Your task to perform on an android device: Search for razer kraken on target, select the first entry, and add it to the cart. Image 0: 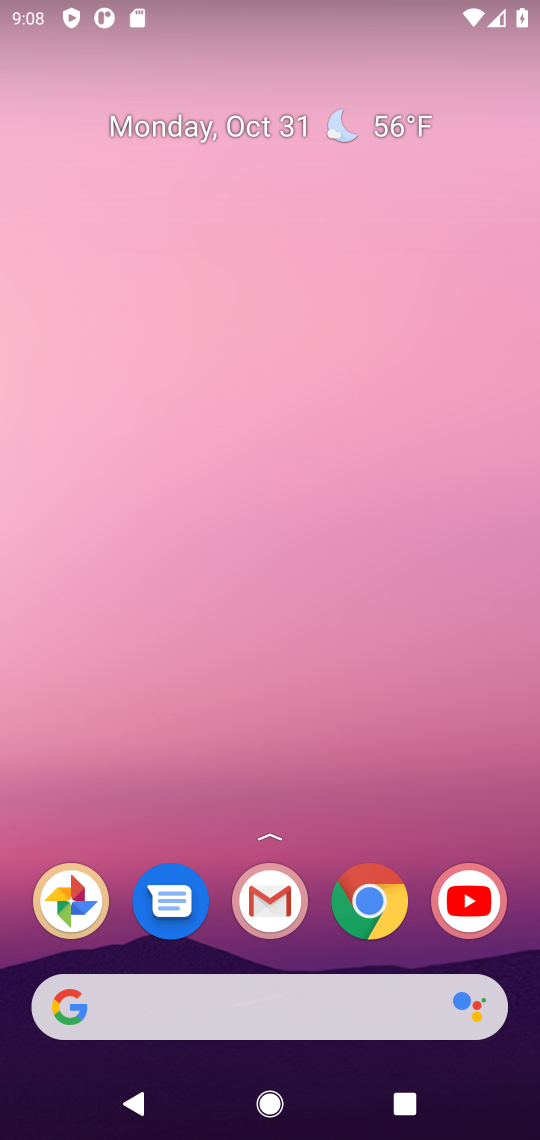
Step 0: drag from (199, 912) to (279, 101)
Your task to perform on an android device: Search for razer kraken on target, select the first entry, and add it to the cart. Image 1: 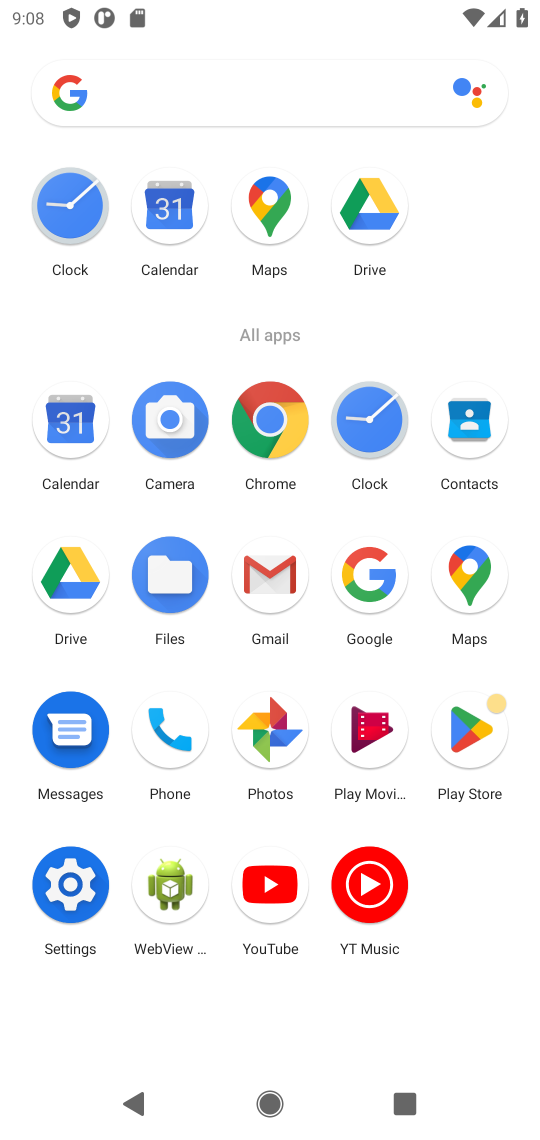
Step 1: click (374, 559)
Your task to perform on an android device: Search for razer kraken on target, select the first entry, and add it to the cart. Image 2: 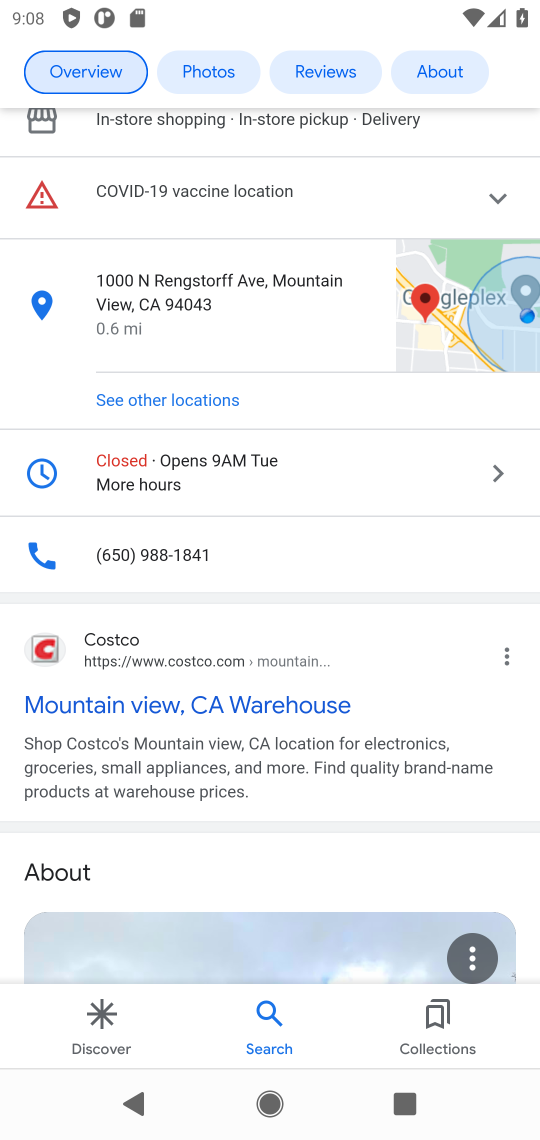
Step 2: drag from (227, 253) to (214, 759)
Your task to perform on an android device: Search for razer kraken on target, select the first entry, and add it to the cart. Image 3: 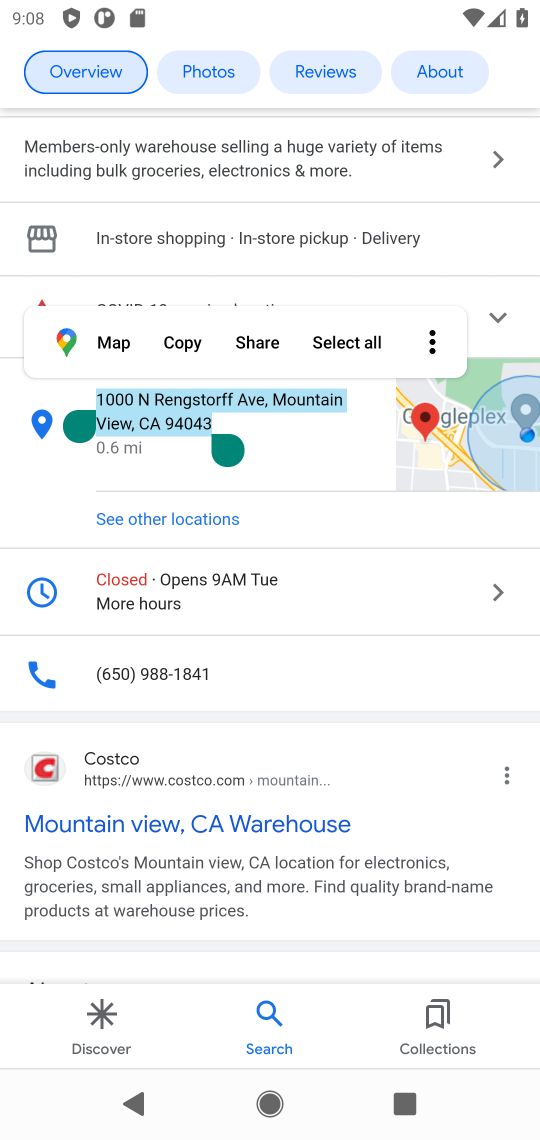
Step 3: click (384, 752)
Your task to perform on an android device: Search for razer kraken on target, select the first entry, and add it to the cart. Image 4: 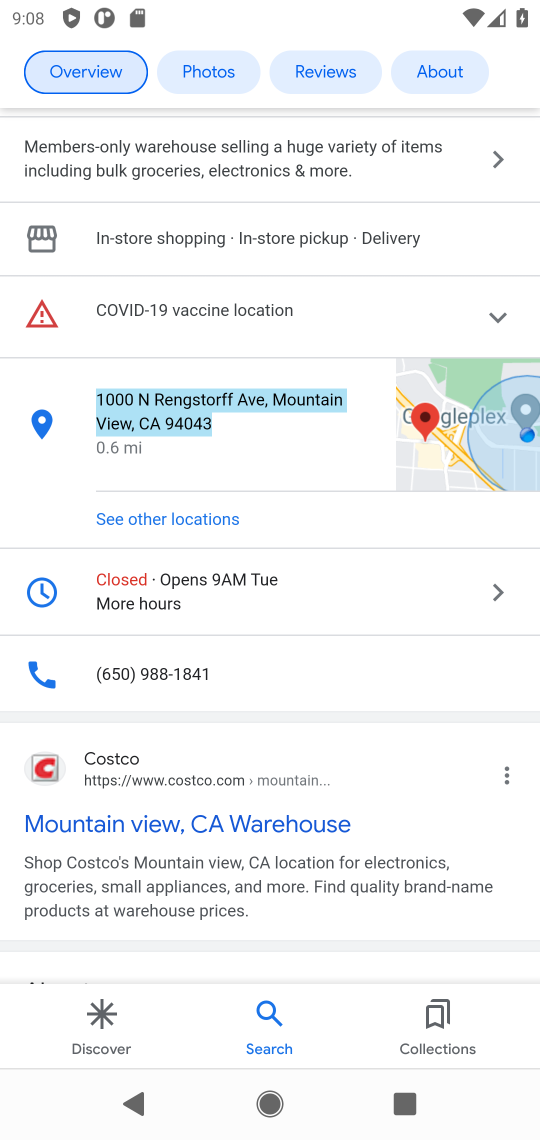
Step 4: drag from (228, 223) to (261, 924)
Your task to perform on an android device: Search for razer kraken on target, select the first entry, and add it to the cart. Image 5: 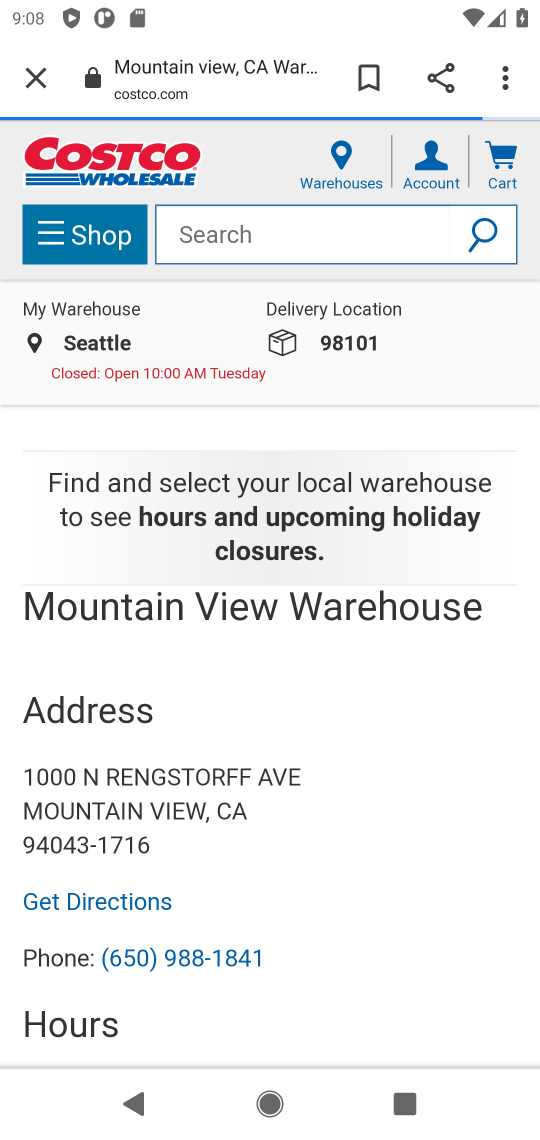
Step 5: press back button
Your task to perform on an android device: Search for razer kraken on target, select the first entry, and add it to the cart. Image 6: 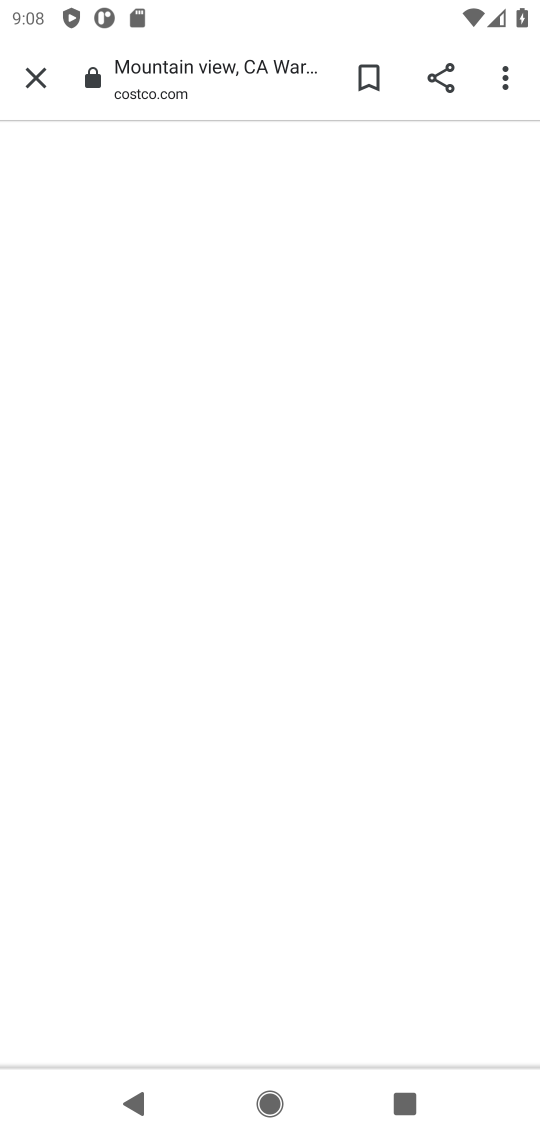
Step 6: press back button
Your task to perform on an android device: Search for razer kraken on target, select the first entry, and add it to the cart. Image 7: 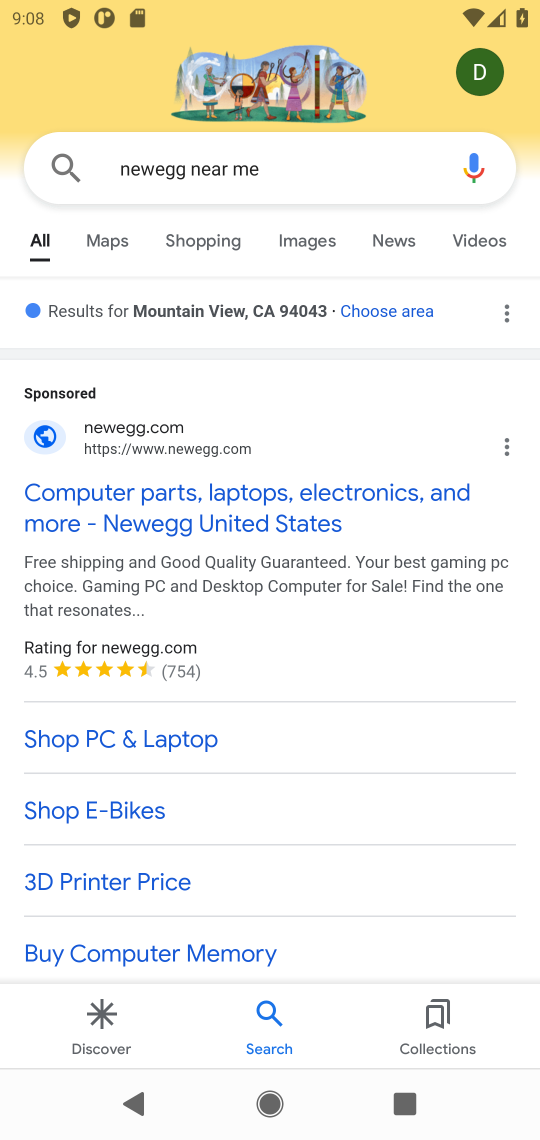
Step 7: click (304, 166)
Your task to perform on an android device: Search for razer kraken on target, select the first entry, and add it to the cart. Image 8: 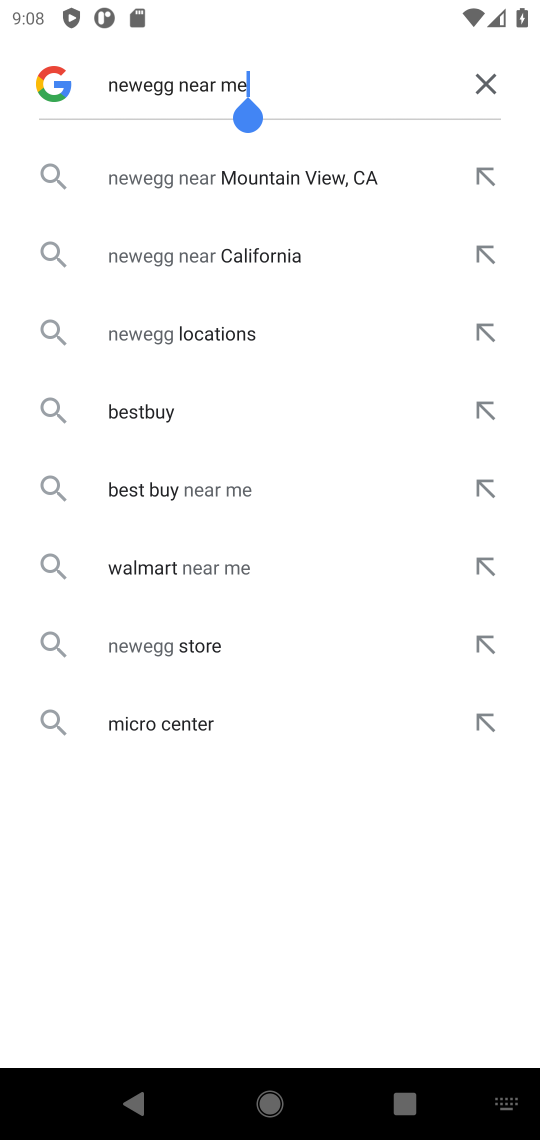
Step 8: click (488, 81)
Your task to perform on an android device: Search for razer kraken on target, select the first entry, and add it to the cart. Image 9: 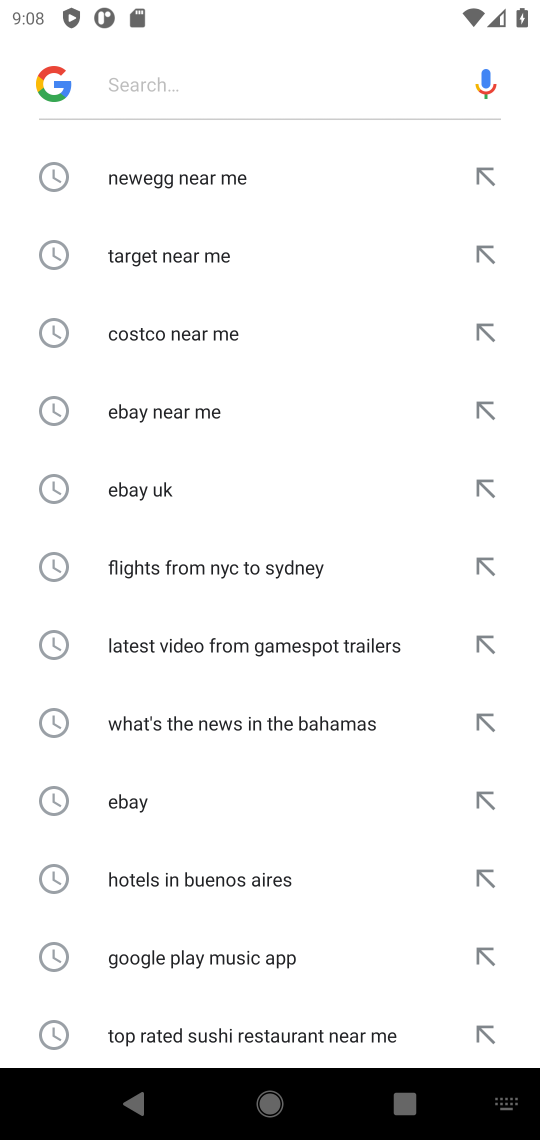
Step 9: click (213, 91)
Your task to perform on an android device: Search for razer kraken on target, select the first entry, and add it to the cart. Image 10: 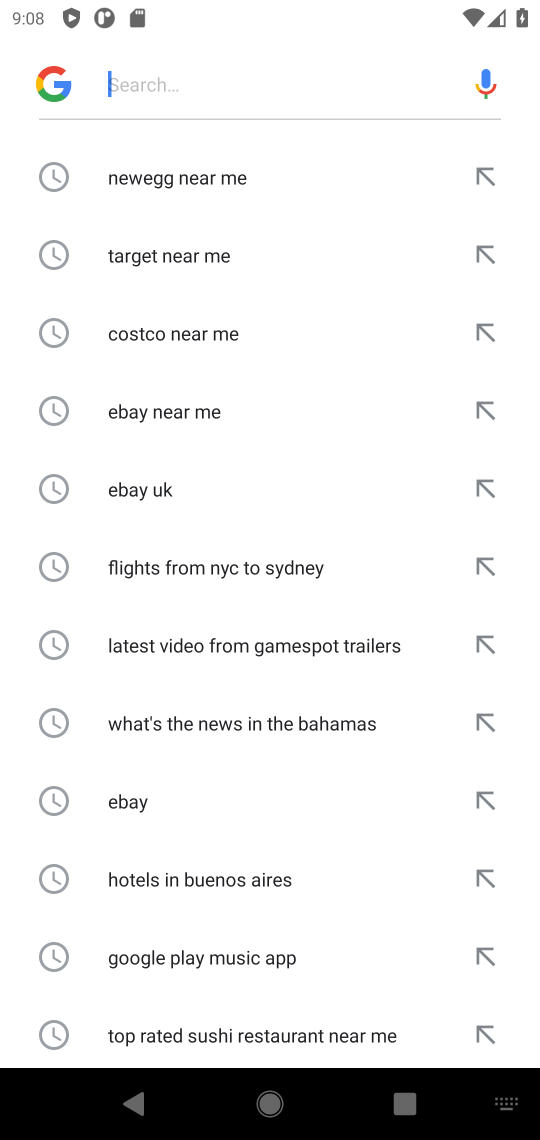
Step 10: type "target "
Your task to perform on an android device: Search for razer kraken on target, select the first entry, and add it to the cart. Image 11: 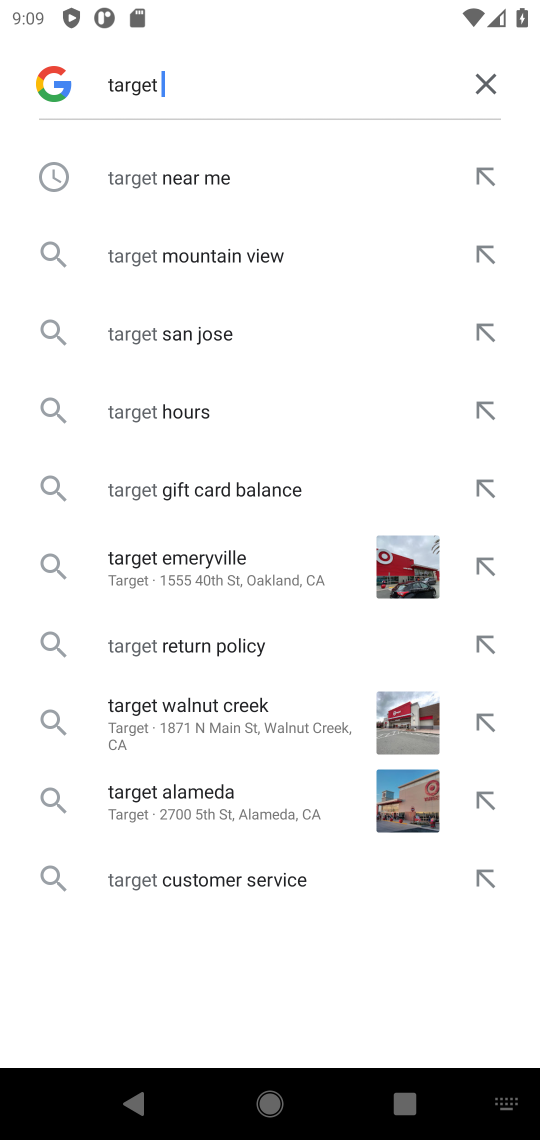
Step 11: click (189, 181)
Your task to perform on an android device: Search for razer kraken on target, select the first entry, and add it to the cart. Image 12: 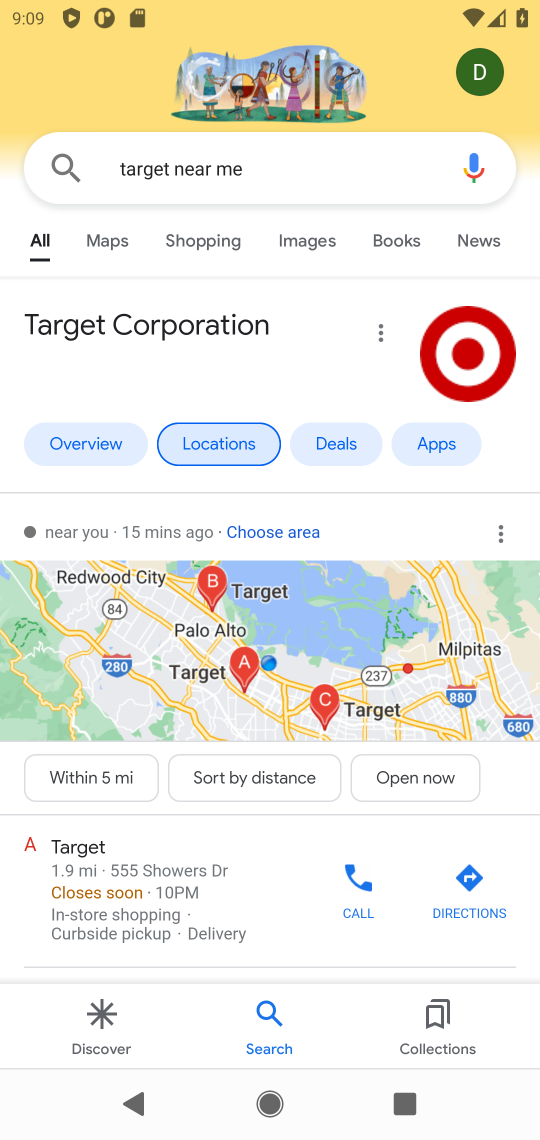
Step 12: drag from (202, 846) to (376, 324)
Your task to perform on an android device: Search for razer kraken on target, select the first entry, and add it to the cart. Image 13: 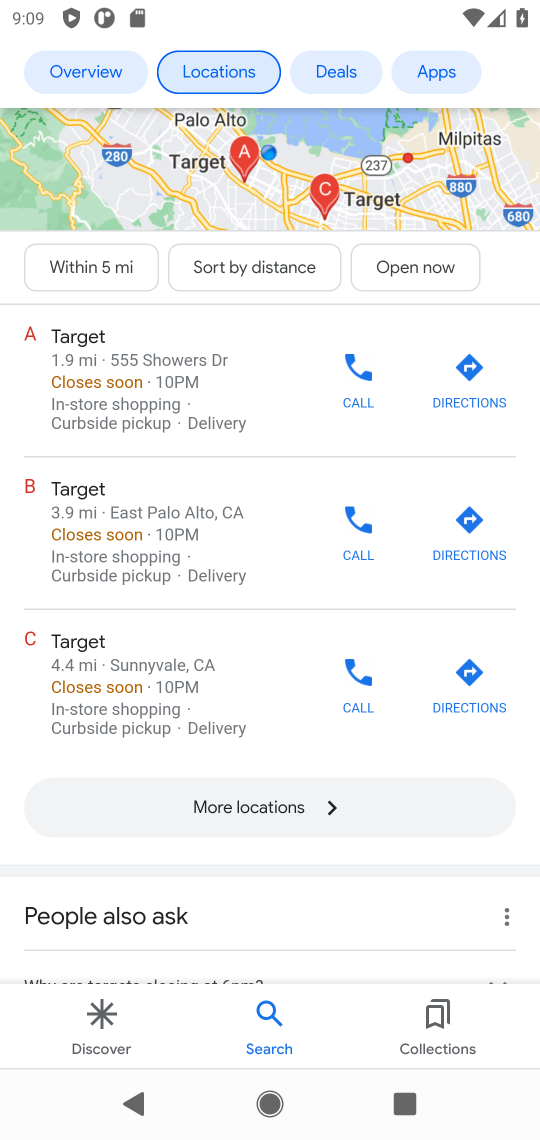
Step 13: drag from (152, 912) to (266, 302)
Your task to perform on an android device: Search for razer kraken on target, select the first entry, and add it to the cart. Image 14: 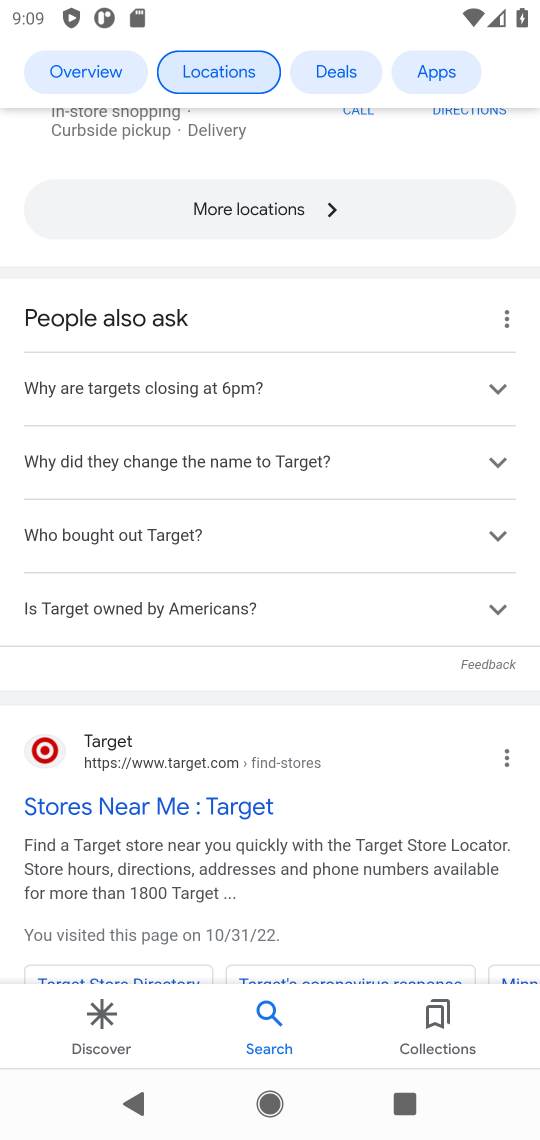
Step 14: click (44, 743)
Your task to perform on an android device: Search for razer kraken on target, select the first entry, and add it to the cart. Image 15: 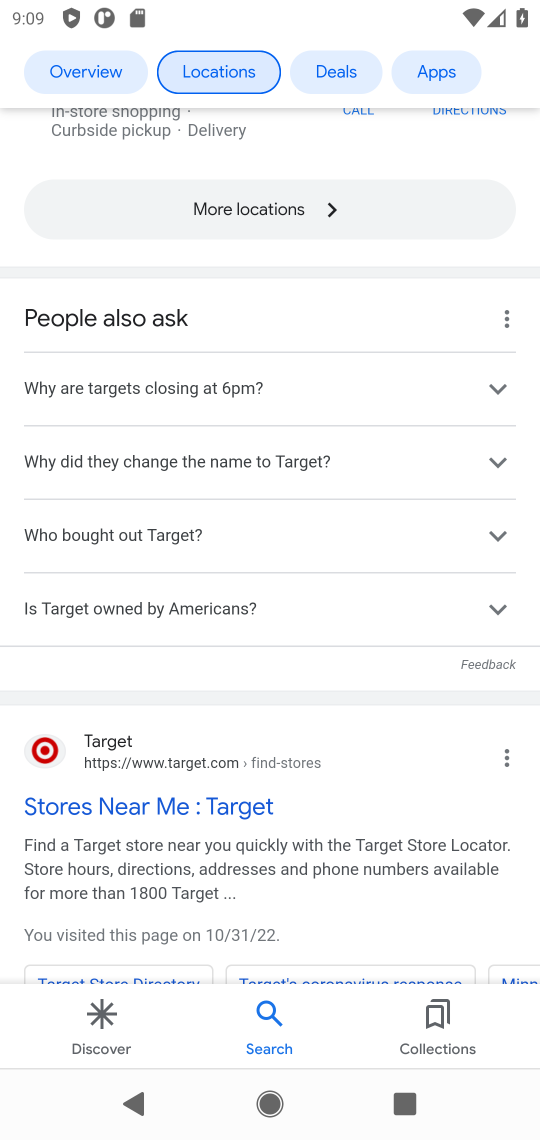
Step 15: click (44, 743)
Your task to perform on an android device: Search for razer kraken on target, select the first entry, and add it to the cart. Image 16: 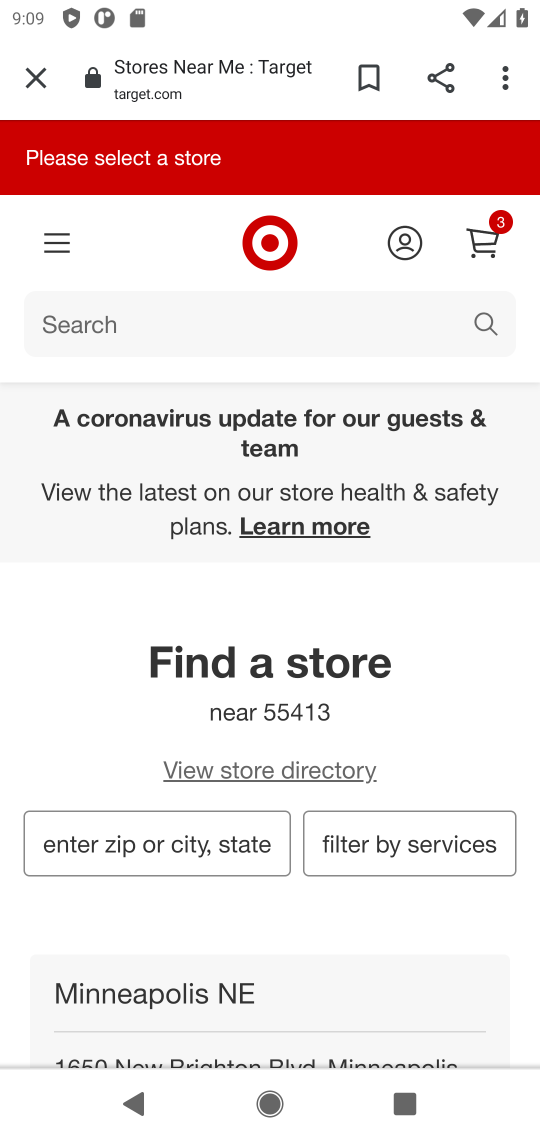
Step 16: click (136, 297)
Your task to perform on an android device: Search for razer kraken on target, select the first entry, and add it to the cart. Image 17: 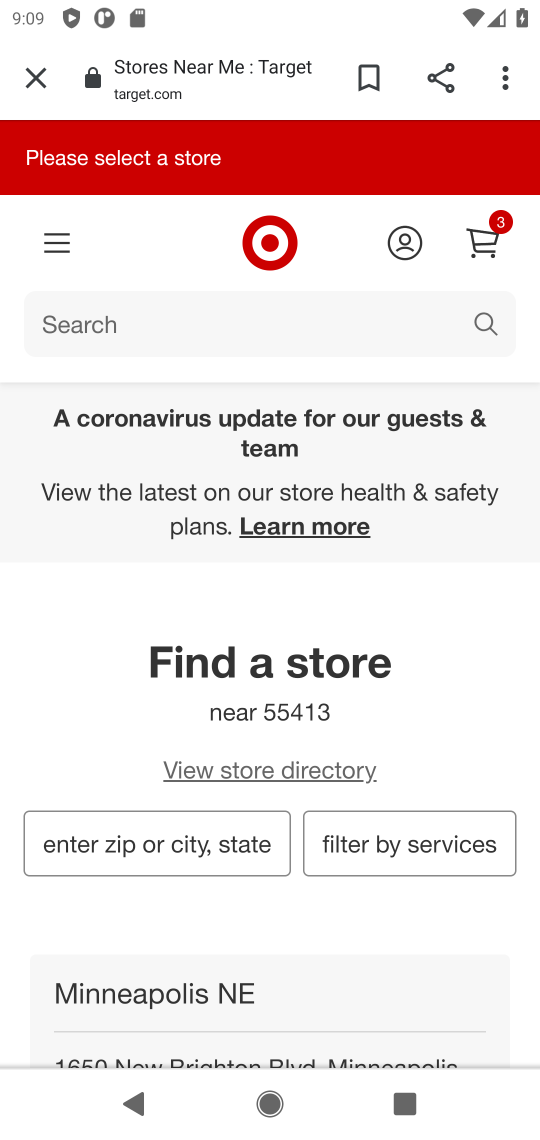
Step 17: click (161, 317)
Your task to perform on an android device: Search for razer kraken on target, select the first entry, and add it to the cart. Image 18: 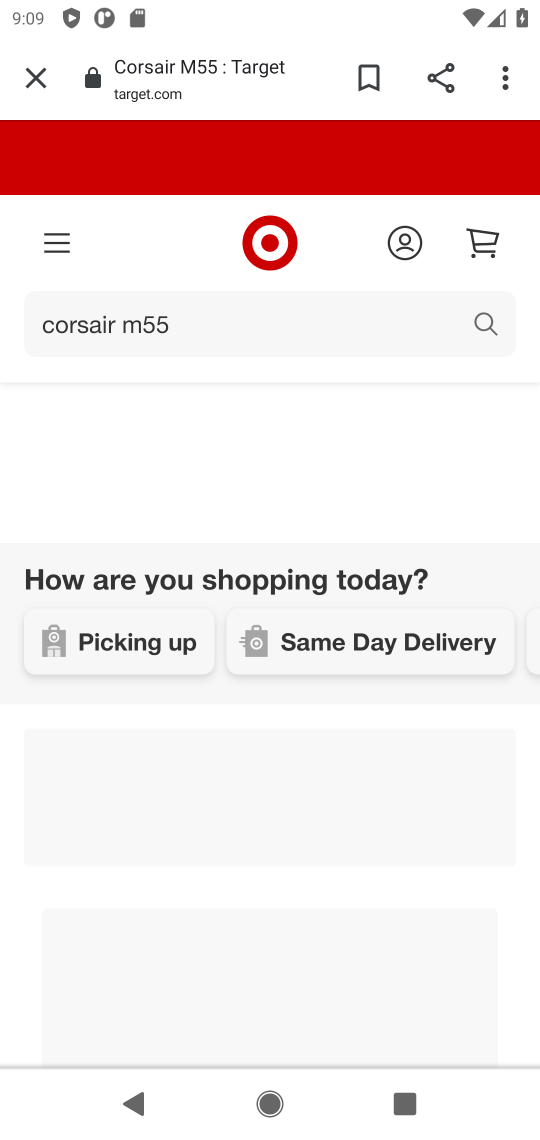
Step 18: type "razer kraken  "
Your task to perform on an android device: Search for razer kraken on target, select the first entry, and add it to the cart. Image 19: 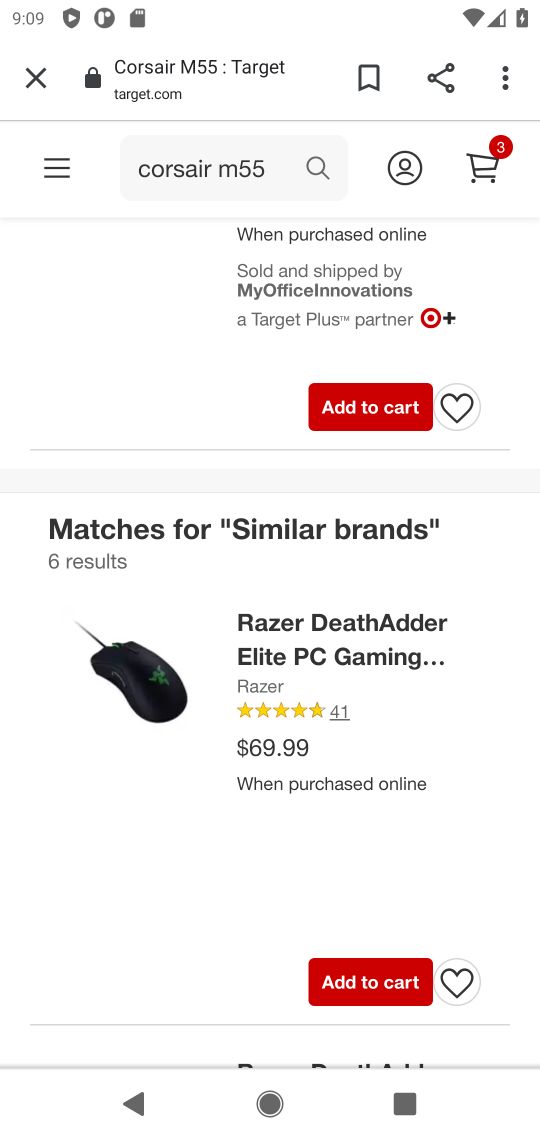
Step 19: click (313, 165)
Your task to perform on an android device: Search for razer kraken on target, select the first entry, and add it to the cart. Image 20: 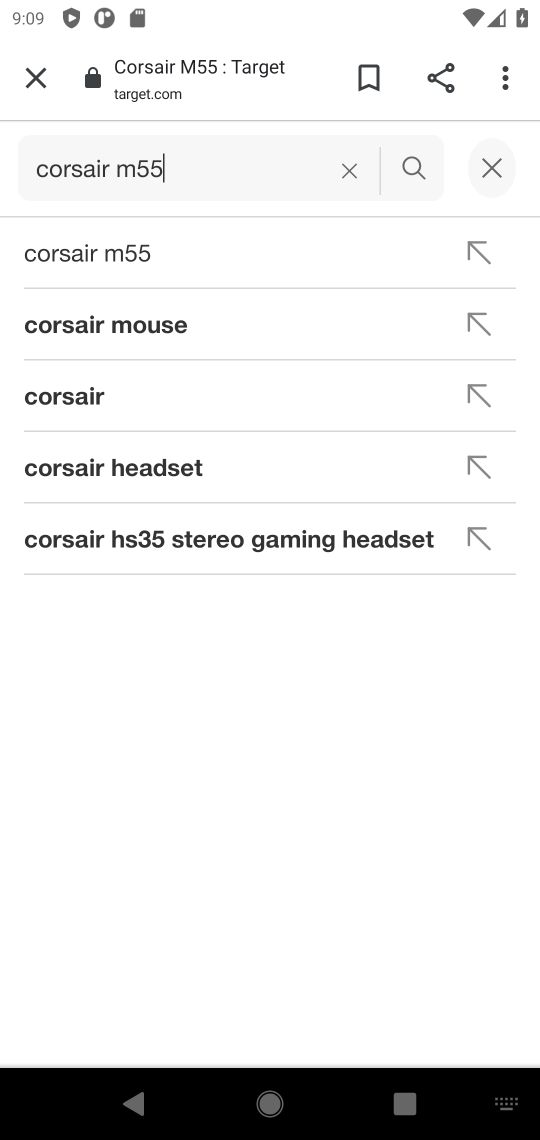
Step 20: click (338, 169)
Your task to perform on an android device: Search for razer kraken on target, select the first entry, and add it to the cart. Image 21: 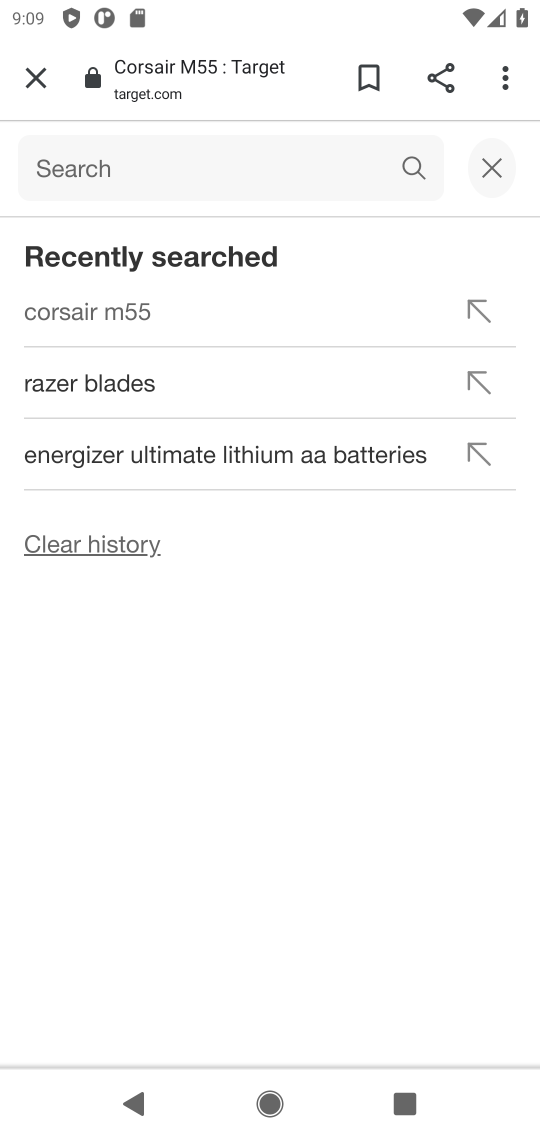
Step 21: click (129, 160)
Your task to perform on an android device: Search for razer kraken on target, select the first entry, and add it to the cart. Image 22: 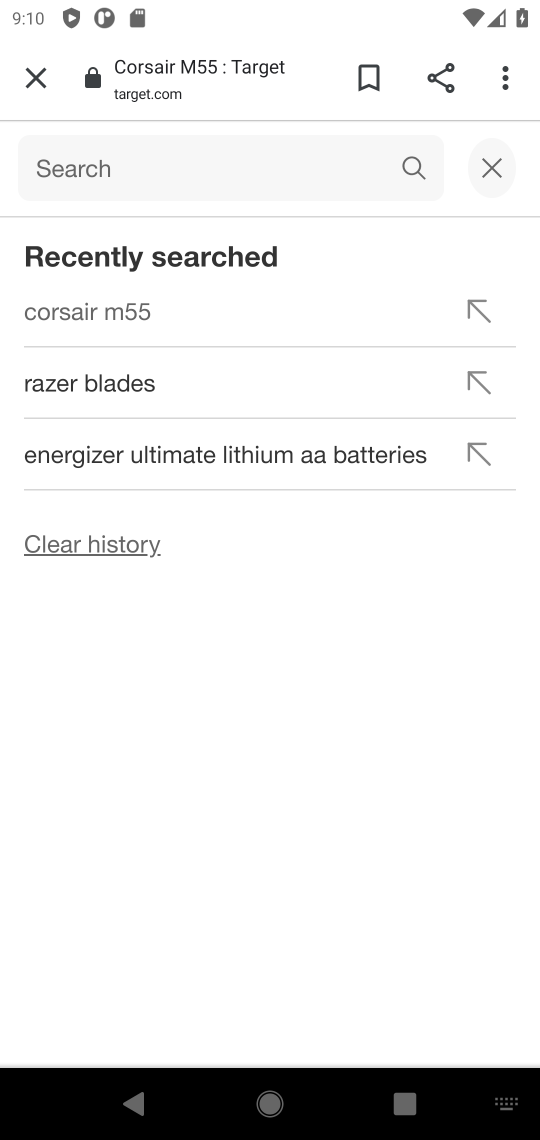
Step 22: type "razer kraken "
Your task to perform on an android device: Search for razer kraken on target, select the first entry, and add it to the cart. Image 23: 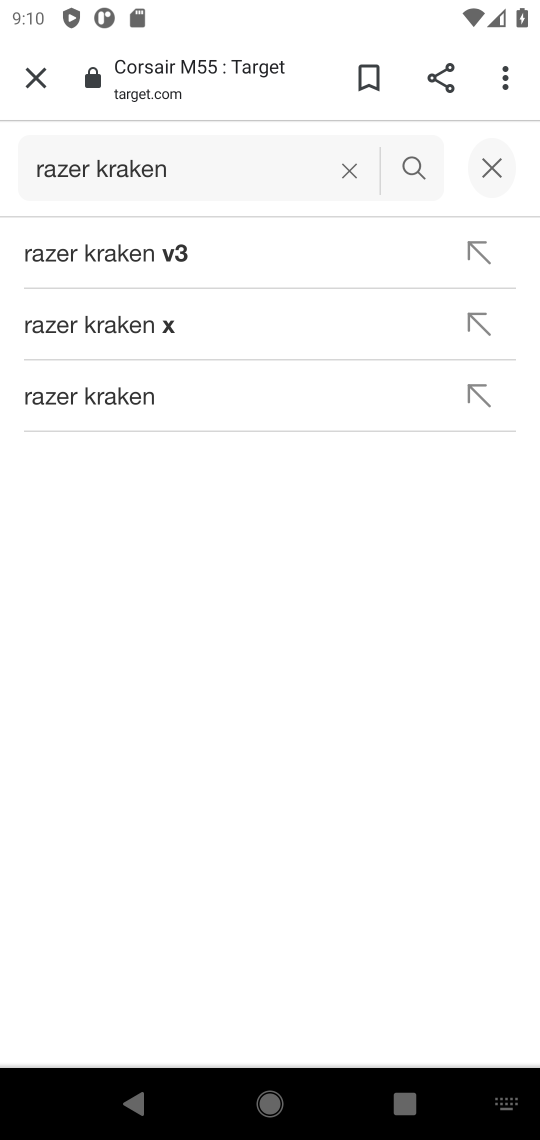
Step 23: click (155, 404)
Your task to perform on an android device: Search for razer kraken on target, select the first entry, and add it to the cart. Image 24: 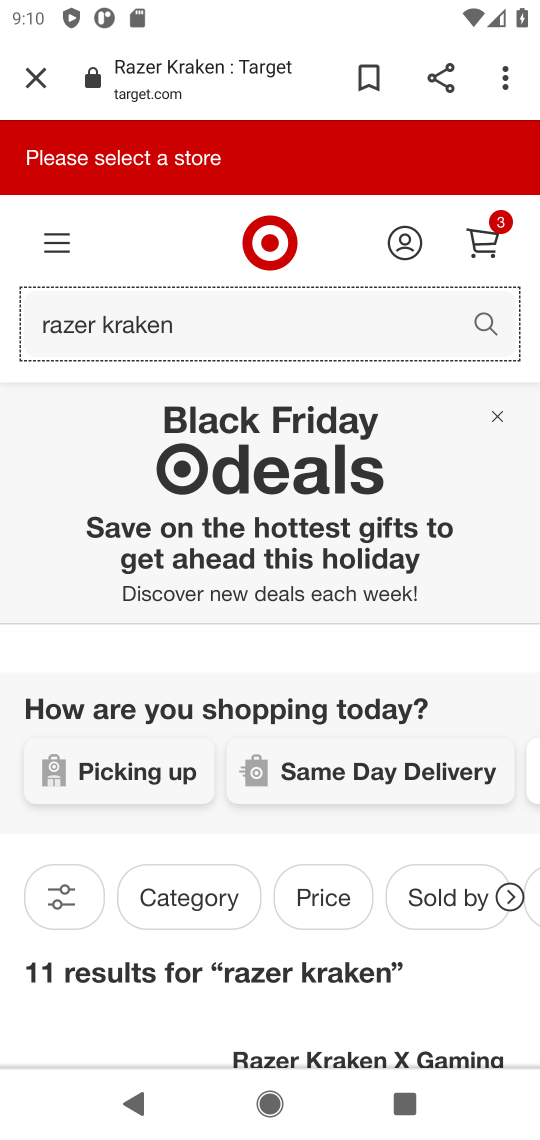
Step 24: drag from (299, 905) to (311, 399)
Your task to perform on an android device: Search for razer kraken on target, select the first entry, and add it to the cart. Image 25: 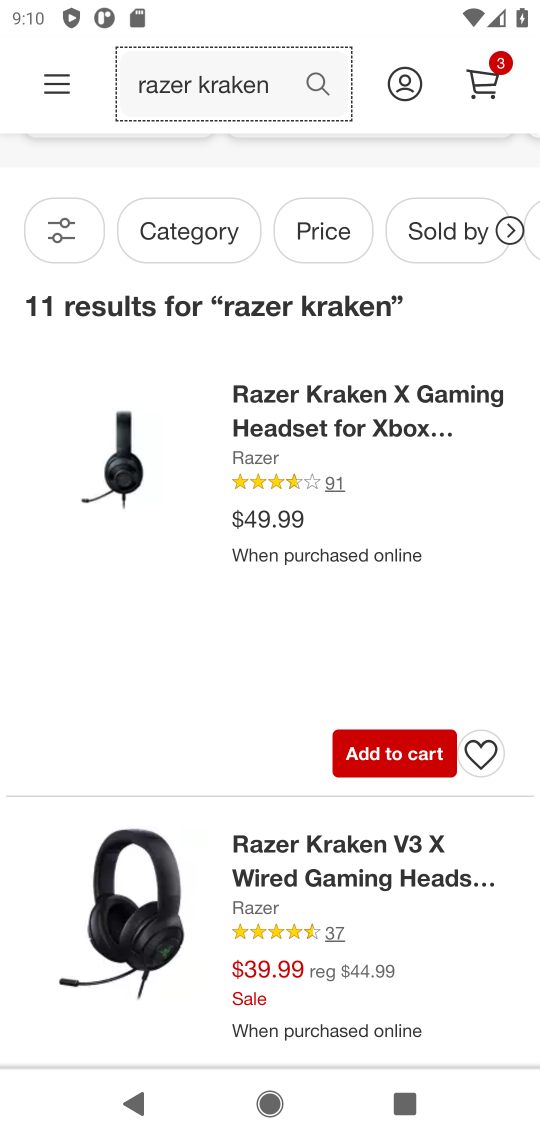
Step 25: click (381, 752)
Your task to perform on an android device: Search for razer kraken on target, select the first entry, and add it to the cart. Image 26: 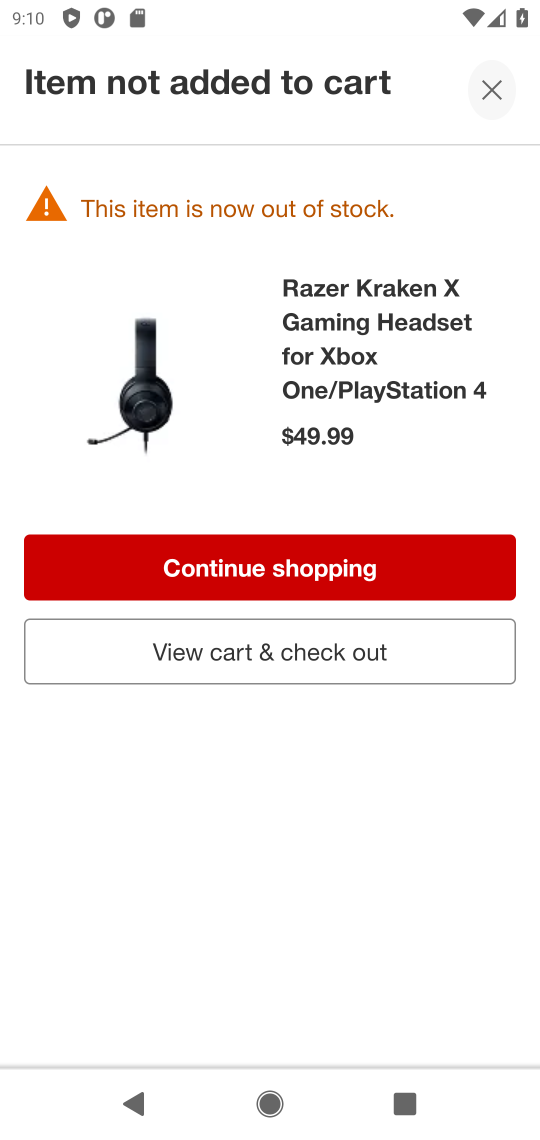
Step 26: task complete